Your task to perform on an android device: open a new tab in the chrome app Image 0: 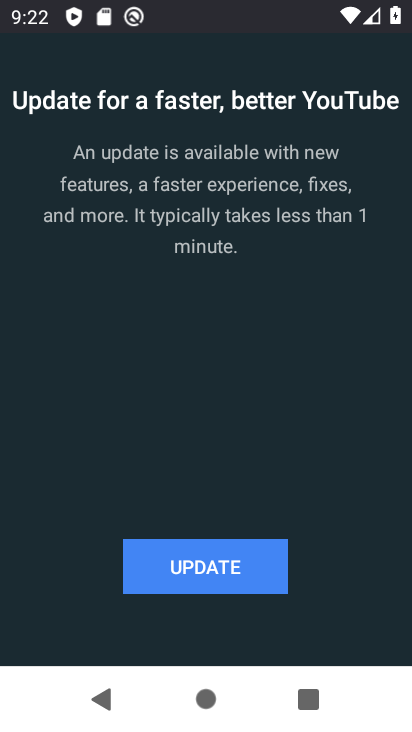
Step 0: press home button
Your task to perform on an android device: open a new tab in the chrome app Image 1: 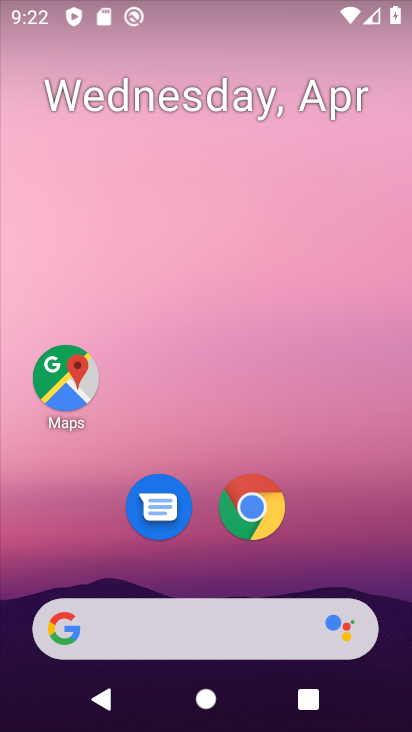
Step 1: click (235, 520)
Your task to perform on an android device: open a new tab in the chrome app Image 2: 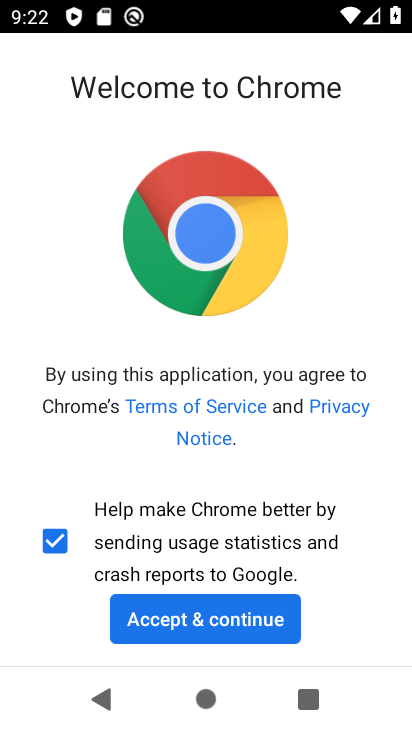
Step 2: click (190, 627)
Your task to perform on an android device: open a new tab in the chrome app Image 3: 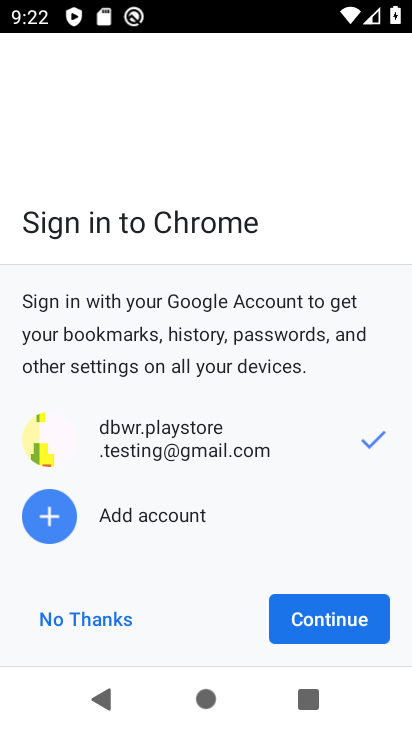
Step 3: click (294, 615)
Your task to perform on an android device: open a new tab in the chrome app Image 4: 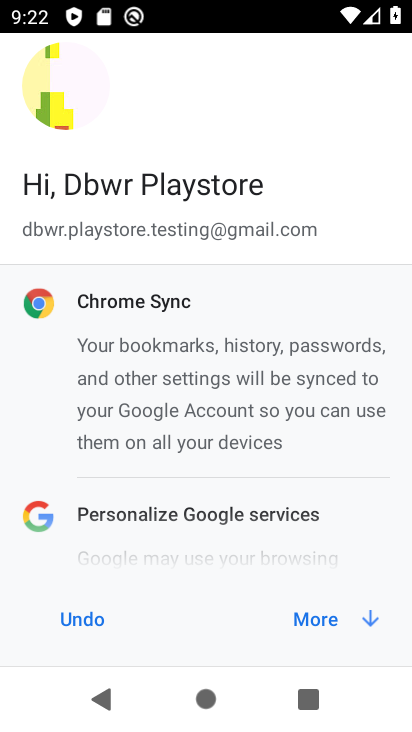
Step 4: click (316, 612)
Your task to perform on an android device: open a new tab in the chrome app Image 5: 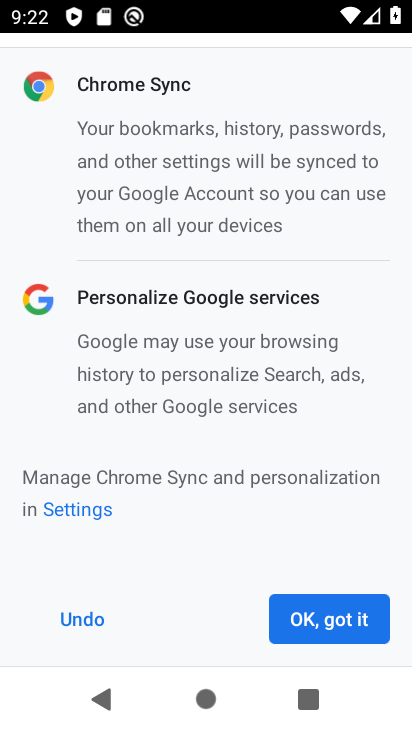
Step 5: click (314, 623)
Your task to perform on an android device: open a new tab in the chrome app Image 6: 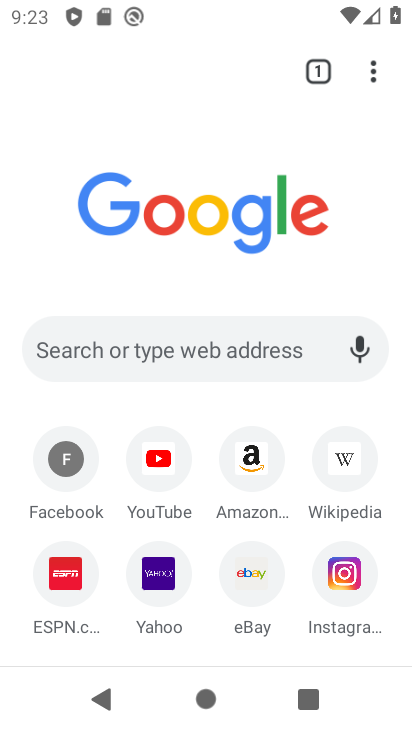
Step 6: task complete